Your task to perform on an android device: set an alarm Image 0: 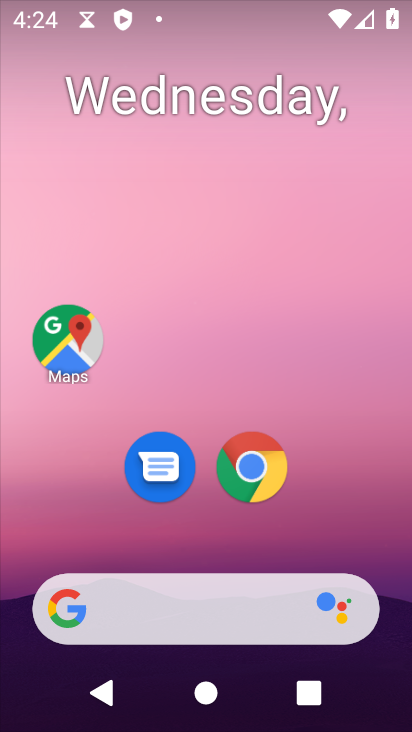
Step 0: drag from (398, 512) to (394, 15)
Your task to perform on an android device: set an alarm Image 1: 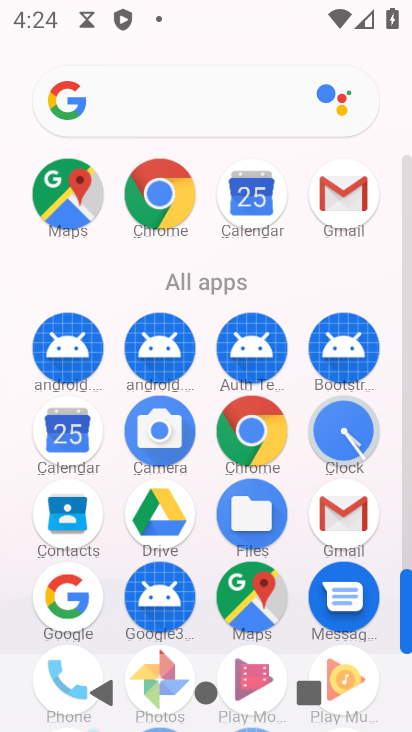
Step 1: click (359, 430)
Your task to perform on an android device: set an alarm Image 2: 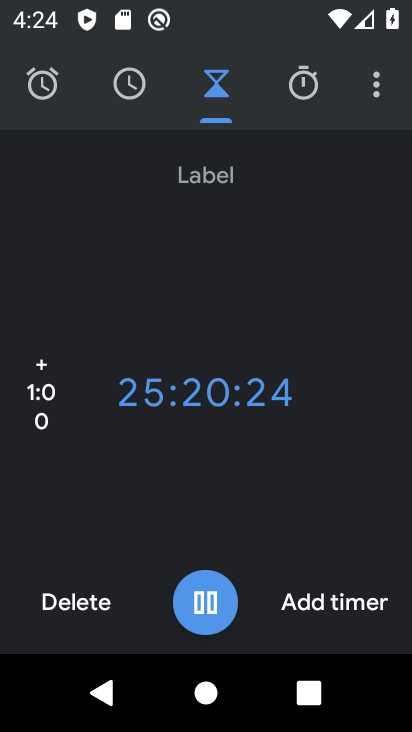
Step 2: click (68, 74)
Your task to perform on an android device: set an alarm Image 3: 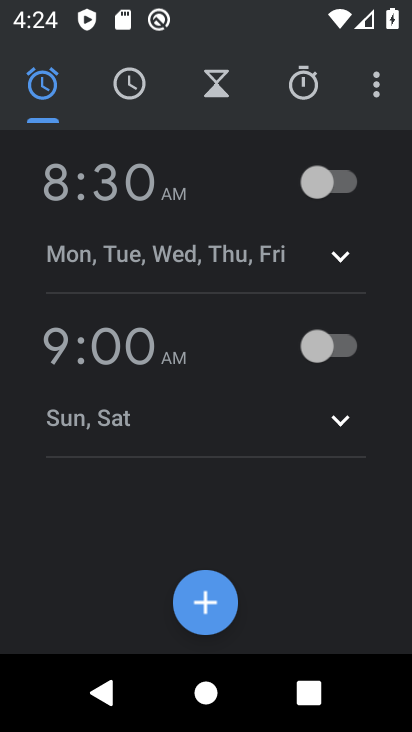
Step 3: click (366, 192)
Your task to perform on an android device: set an alarm Image 4: 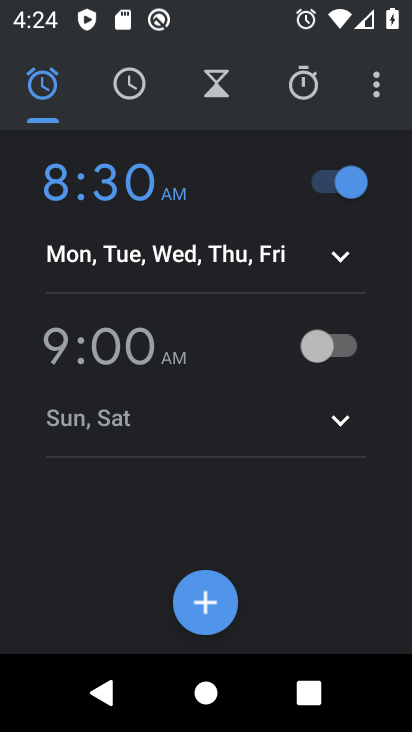
Step 4: task complete